Your task to perform on an android device: Open Google Maps and go to "Timeline" Image 0: 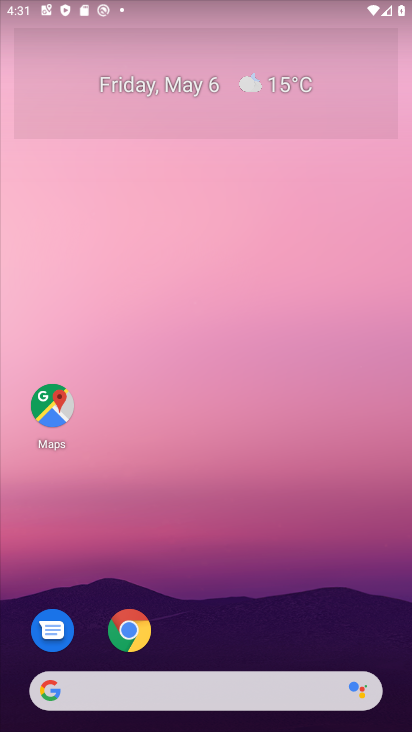
Step 0: click (55, 401)
Your task to perform on an android device: Open Google Maps and go to "Timeline" Image 1: 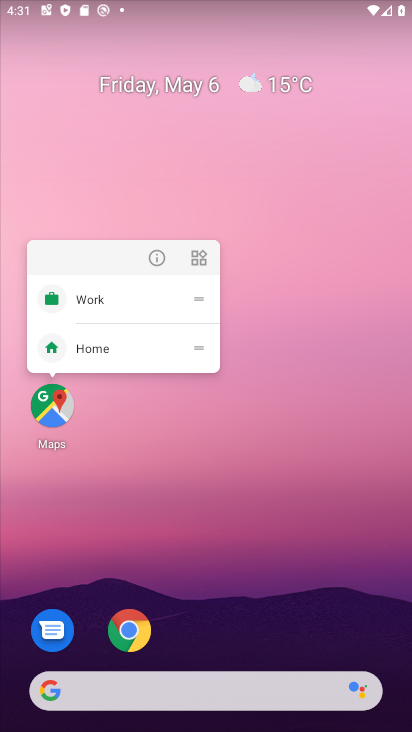
Step 1: click (58, 402)
Your task to perform on an android device: Open Google Maps and go to "Timeline" Image 2: 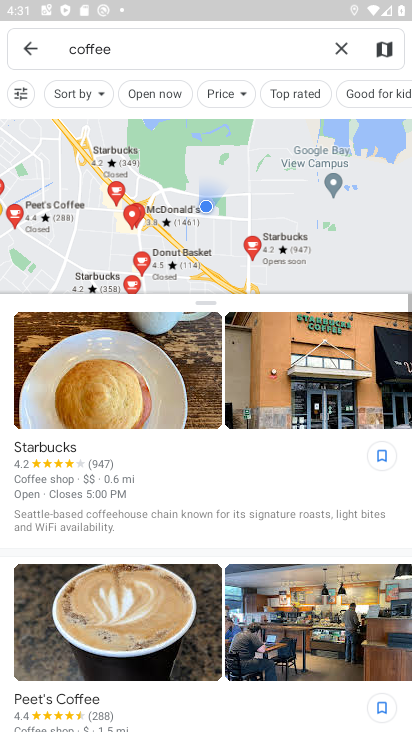
Step 2: click (29, 46)
Your task to perform on an android device: Open Google Maps and go to "Timeline" Image 3: 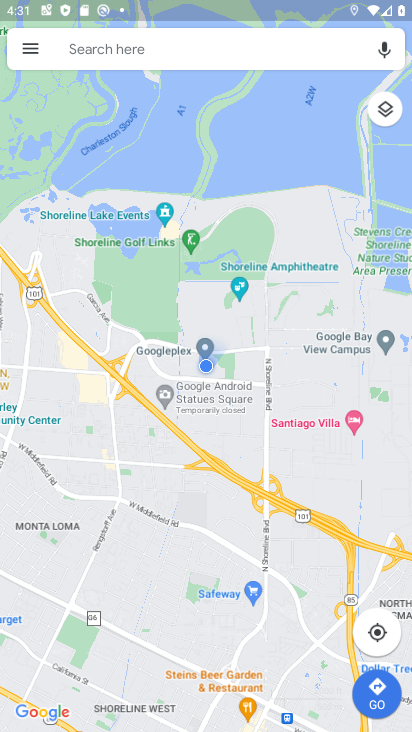
Step 3: click (36, 45)
Your task to perform on an android device: Open Google Maps and go to "Timeline" Image 4: 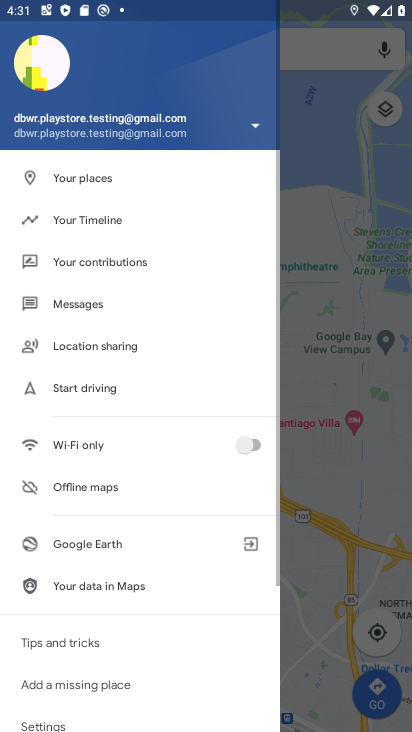
Step 4: click (116, 217)
Your task to perform on an android device: Open Google Maps and go to "Timeline" Image 5: 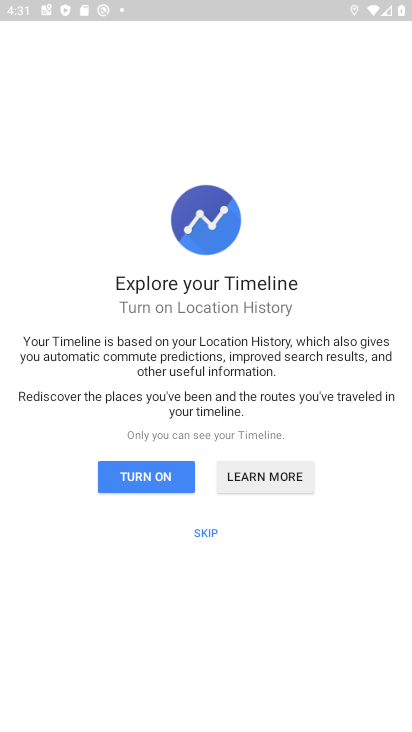
Step 5: click (192, 521)
Your task to perform on an android device: Open Google Maps and go to "Timeline" Image 6: 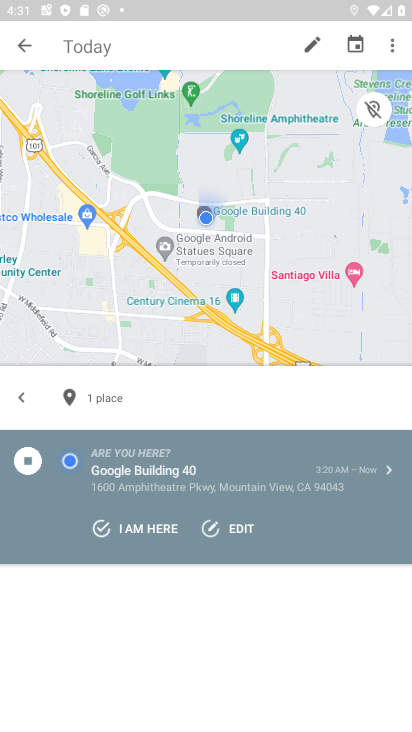
Step 6: task complete